Your task to perform on an android device: Open Android settings Image 0: 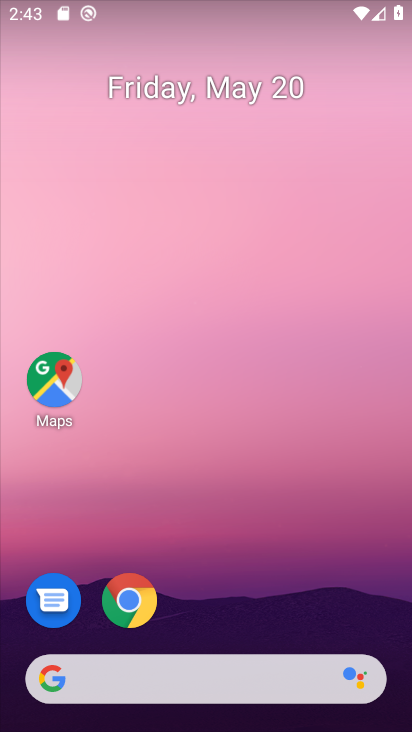
Step 0: drag from (370, 614) to (347, 239)
Your task to perform on an android device: Open Android settings Image 1: 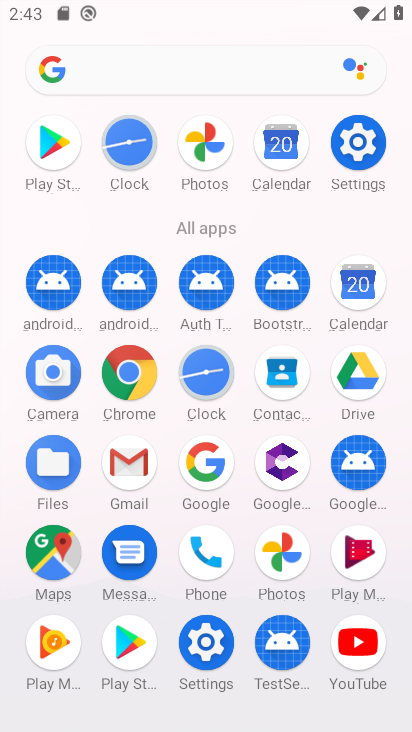
Step 1: click (365, 172)
Your task to perform on an android device: Open Android settings Image 2: 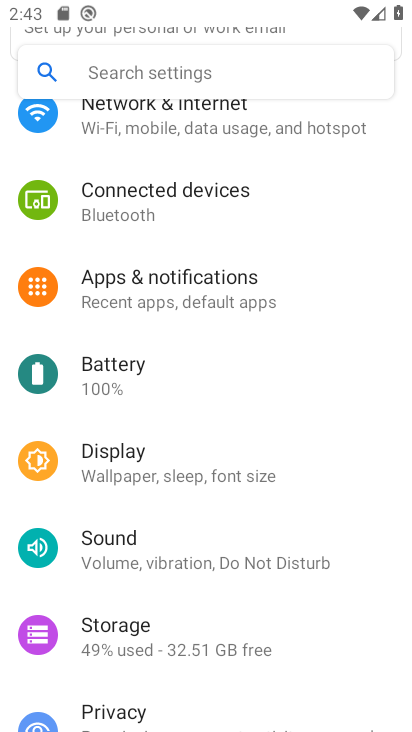
Step 2: drag from (346, 250) to (347, 430)
Your task to perform on an android device: Open Android settings Image 3: 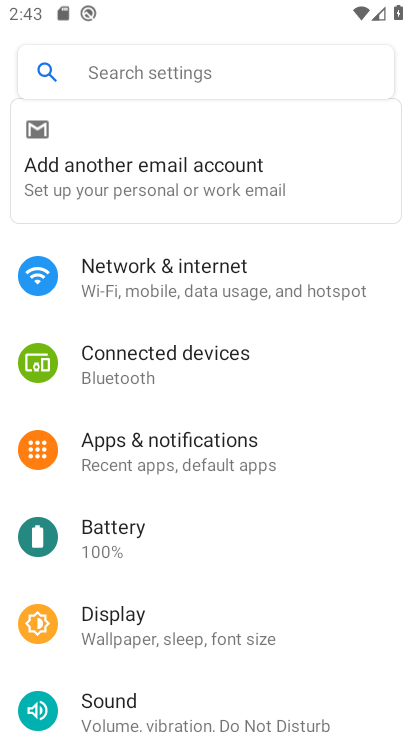
Step 3: drag from (358, 242) to (362, 377)
Your task to perform on an android device: Open Android settings Image 4: 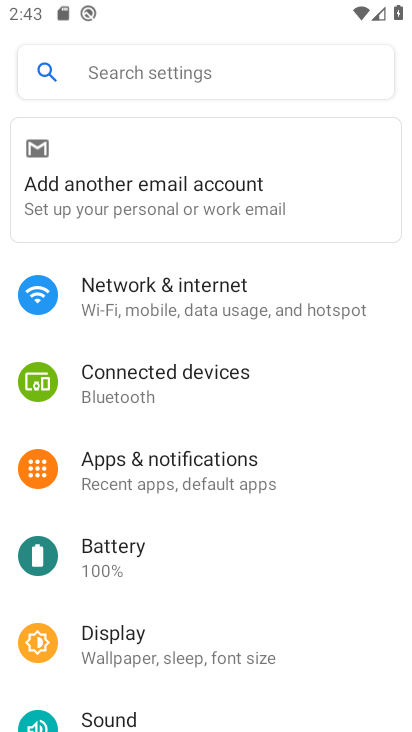
Step 4: drag from (355, 469) to (360, 367)
Your task to perform on an android device: Open Android settings Image 5: 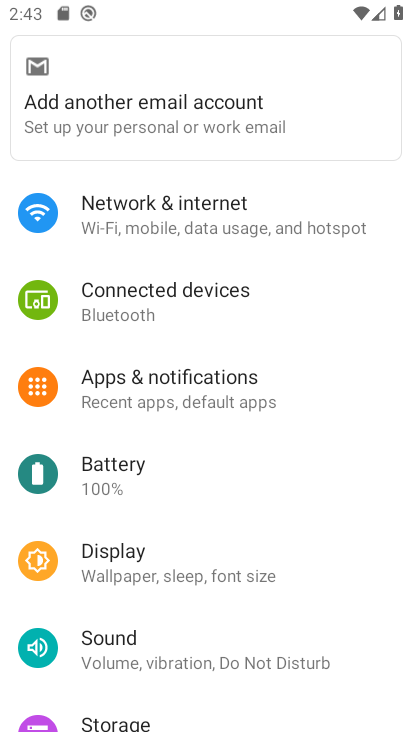
Step 5: drag from (355, 517) to (363, 426)
Your task to perform on an android device: Open Android settings Image 6: 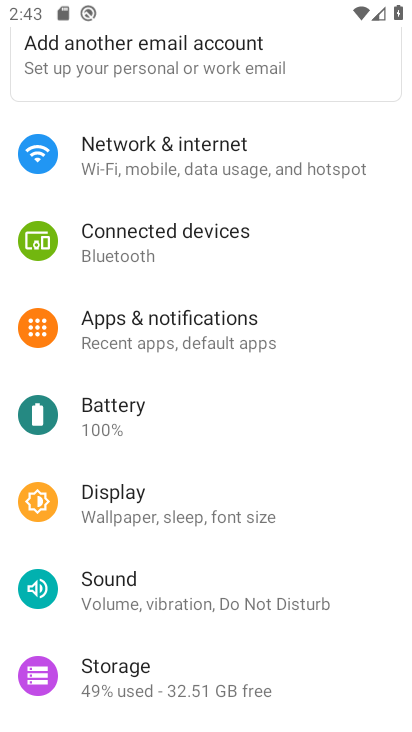
Step 6: drag from (353, 526) to (355, 444)
Your task to perform on an android device: Open Android settings Image 7: 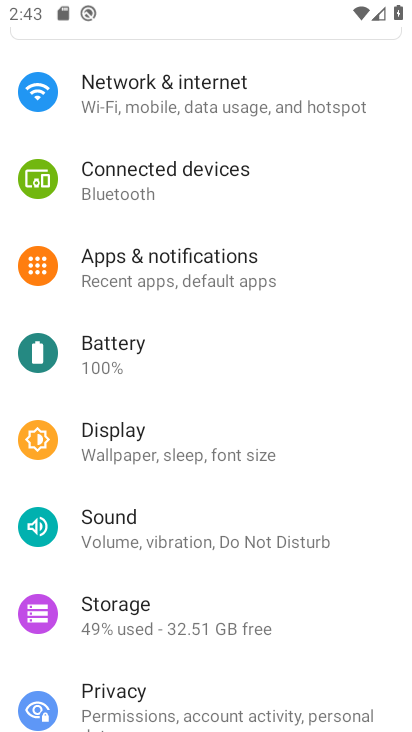
Step 7: drag from (334, 570) to (351, 486)
Your task to perform on an android device: Open Android settings Image 8: 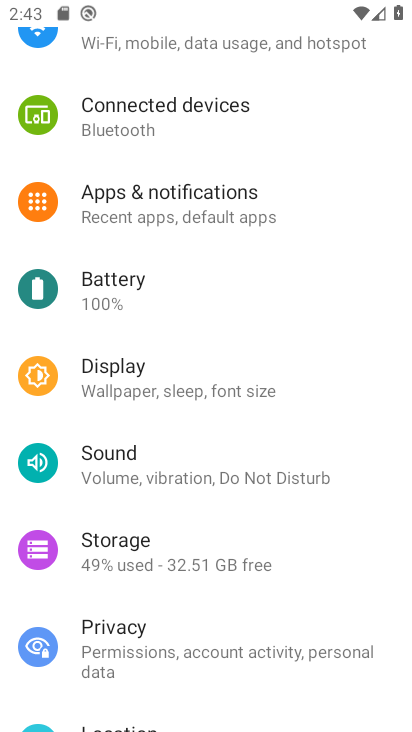
Step 8: drag from (335, 581) to (349, 479)
Your task to perform on an android device: Open Android settings Image 9: 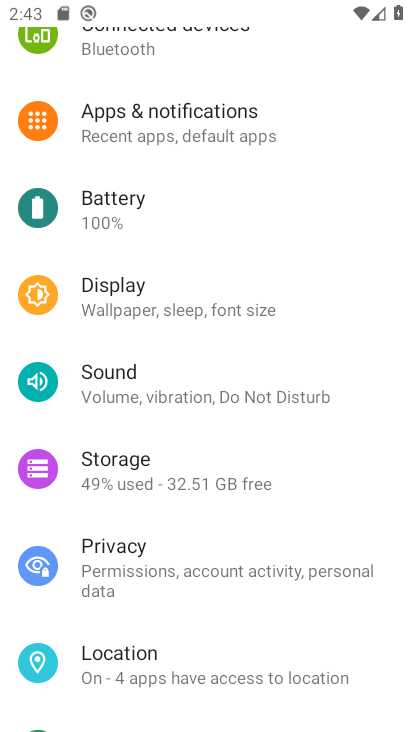
Step 9: drag from (323, 600) to (336, 495)
Your task to perform on an android device: Open Android settings Image 10: 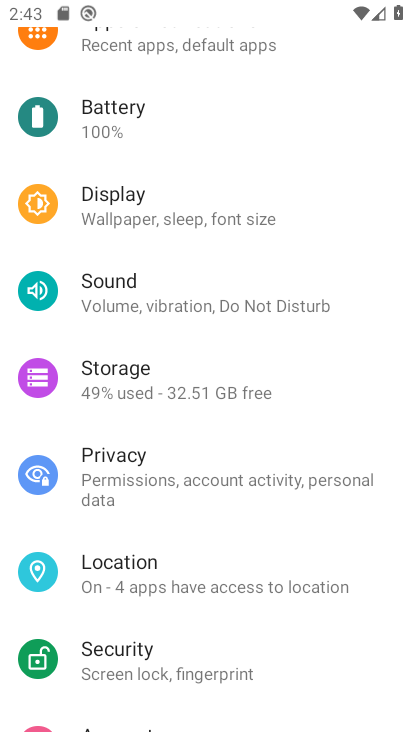
Step 10: drag from (329, 597) to (330, 511)
Your task to perform on an android device: Open Android settings Image 11: 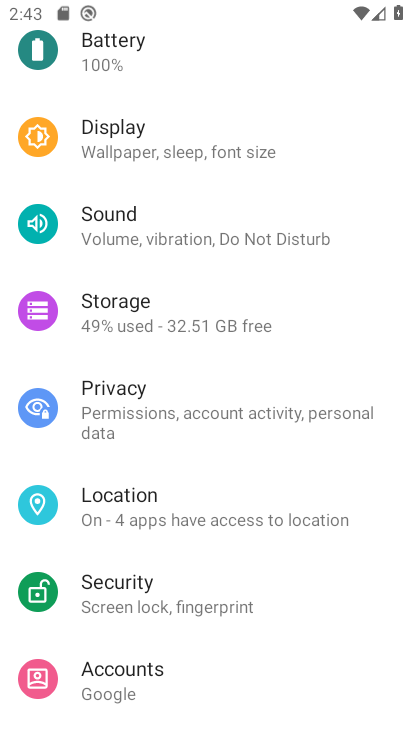
Step 11: drag from (310, 629) to (321, 522)
Your task to perform on an android device: Open Android settings Image 12: 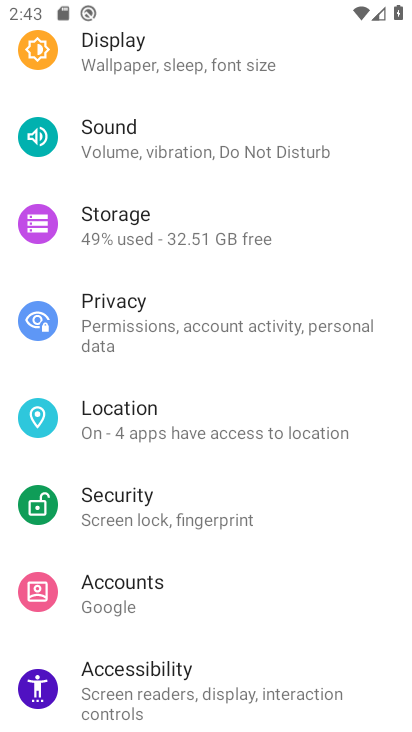
Step 12: drag from (323, 626) to (332, 531)
Your task to perform on an android device: Open Android settings Image 13: 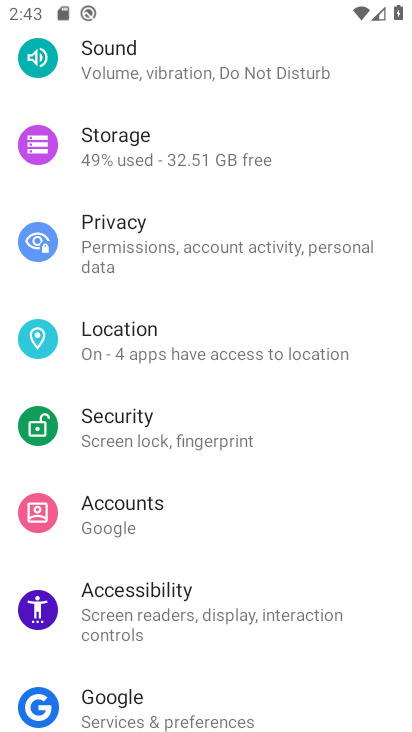
Step 13: drag from (327, 664) to (340, 559)
Your task to perform on an android device: Open Android settings Image 14: 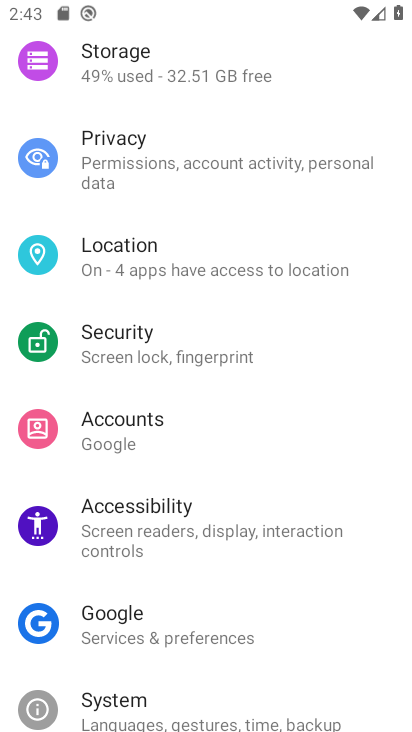
Step 14: drag from (329, 676) to (328, 577)
Your task to perform on an android device: Open Android settings Image 15: 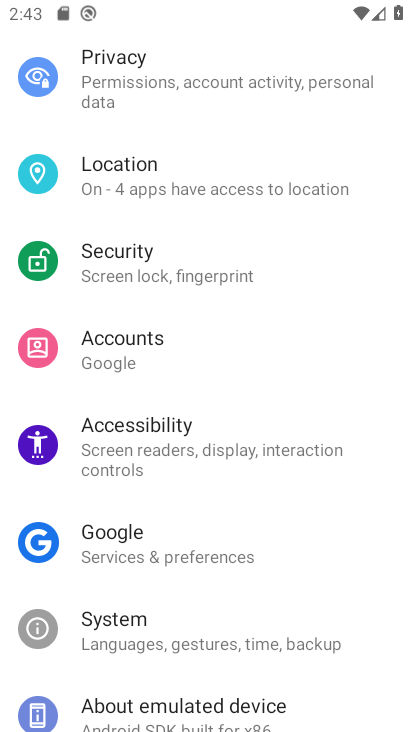
Step 15: drag from (337, 687) to (337, 583)
Your task to perform on an android device: Open Android settings Image 16: 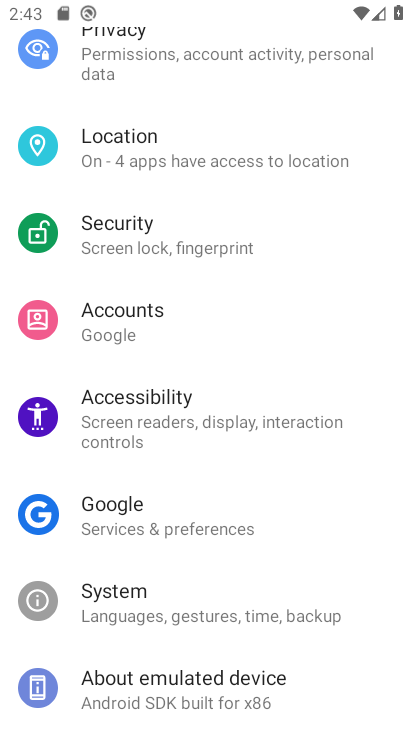
Step 16: click (258, 607)
Your task to perform on an android device: Open Android settings Image 17: 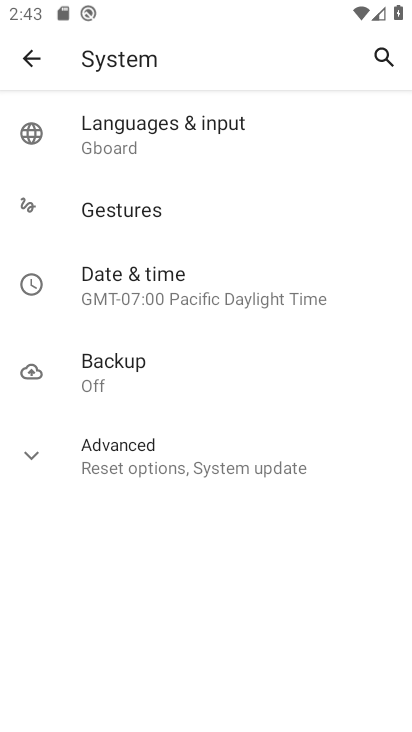
Step 17: click (197, 471)
Your task to perform on an android device: Open Android settings Image 18: 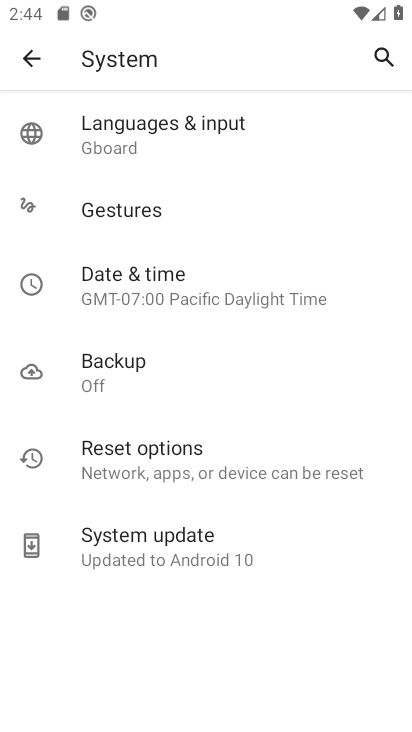
Step 18: task complete